Your task to perform on an android device: What's the weather going to be this weekend? Image 0: 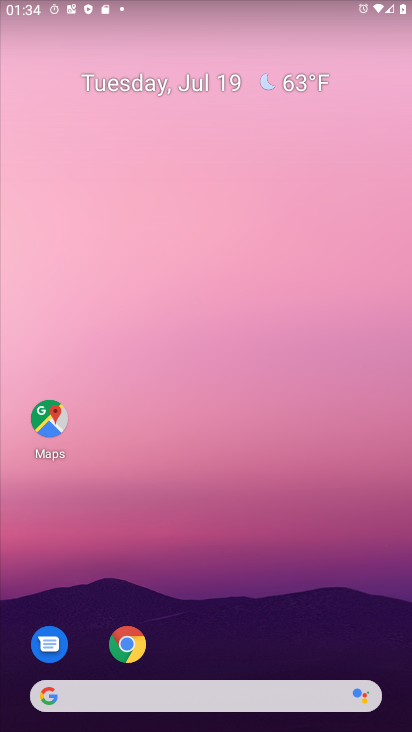
Step 0: drag from (214, 724) to (246, 88)
Your task to perform on an android device: What's the weather going to be this weekend? Image 1: 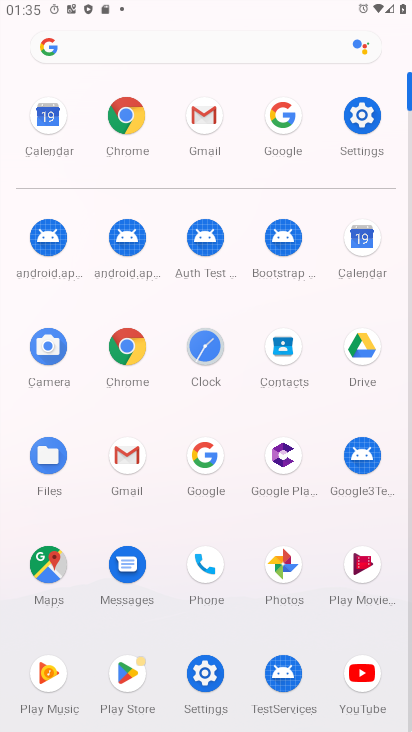
Step 1: click (203, 451)
Your task to perform on an android device: What's the weather going to be this weekend? Image 2: 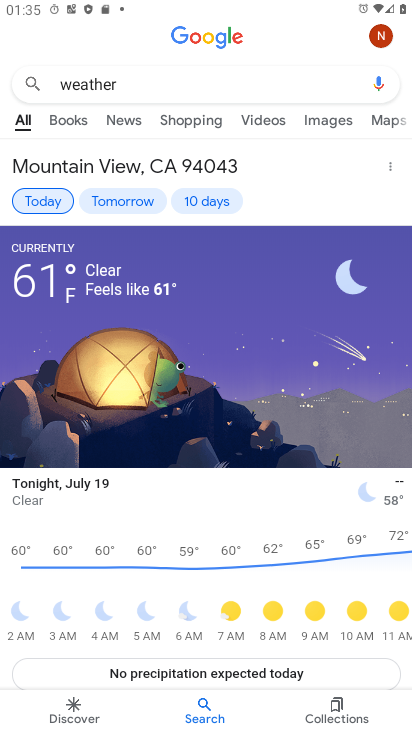
Step 2: click (210, 203)
Your task to perform on an android device: What's the weather going to be this weekend? Image 3: 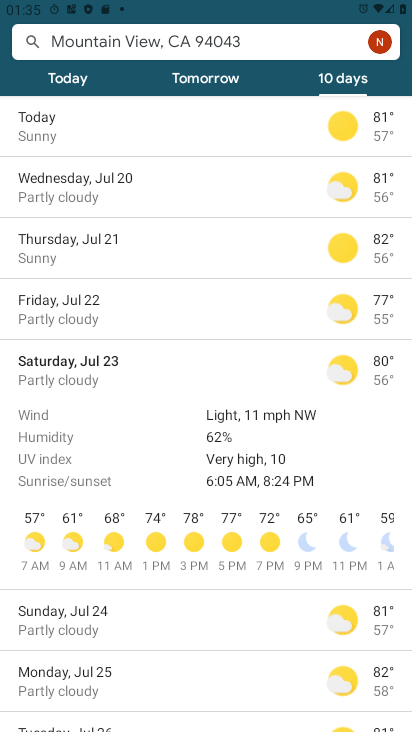
Step 3: task complete